Your task to perform on an android device: Open battery settings Image 0: 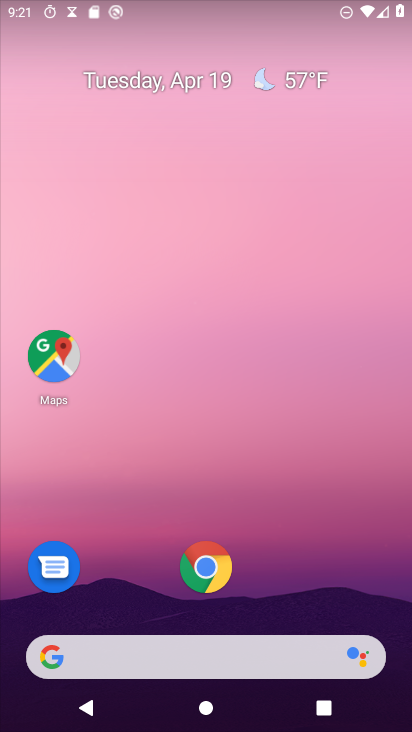
Step 0: drag from (297, 525) to (330, 130)
Your task to perform on an android device: Open battery settings Image 1: 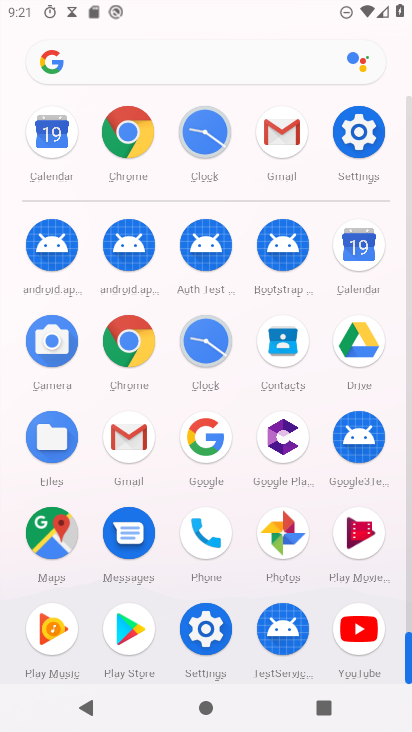
Step 1: click (354, 145)
Your task to perform on an android device: Open battery settings Image 2: 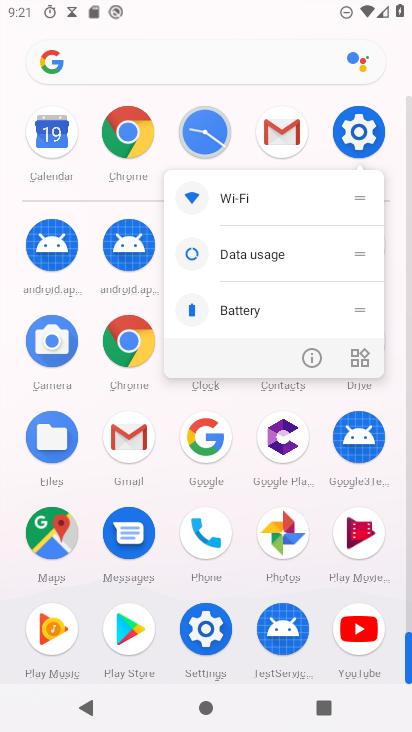
Step 2: click (354, 142)
Your task to perform on an android device: Open battery settings Image 3: 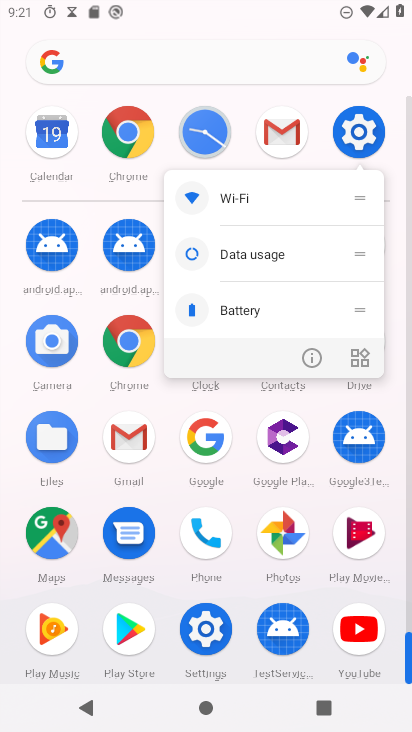
Step 3: click (363, 119)
Your task to perform on an android device: Open battery settings Image 4: 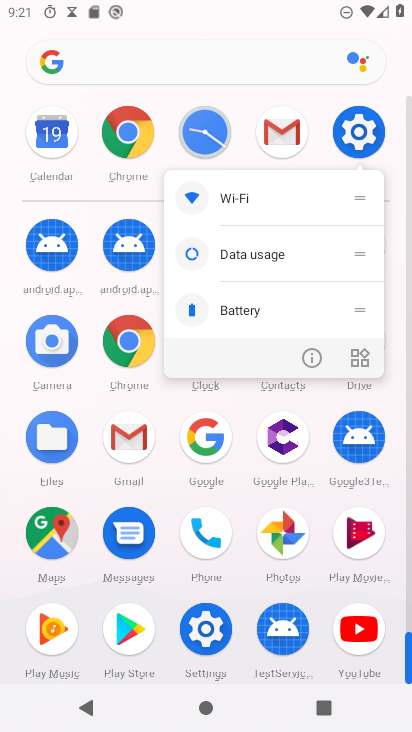
Step 4: click (363, 119)
Your task to perform on an android device: Open battery settings Image 5: 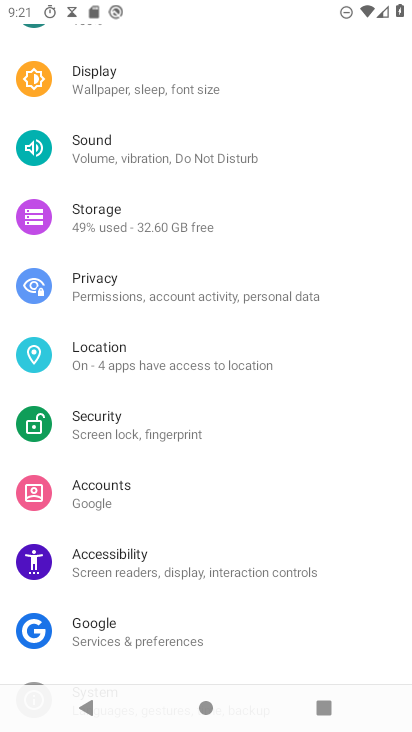
Step 5: drag from (204, 250) to (189, 555)
Your task to perform on an android device: Open battery settings Image 6: 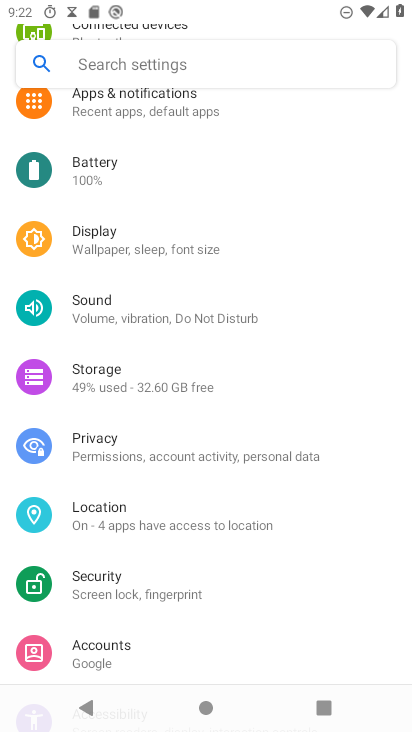
Step 6: click (94, 165)
Your task to perform on an android device: Open battery settings Image 7: 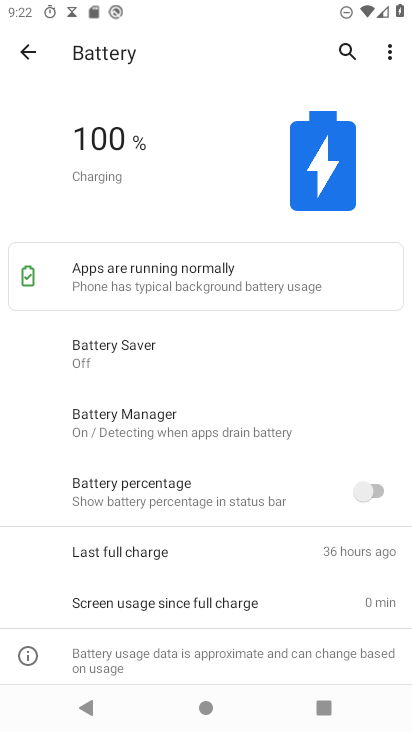
Step 7: task complete